Your task to perform on an android device: toggle notifications settings in the gmail app Image 0: 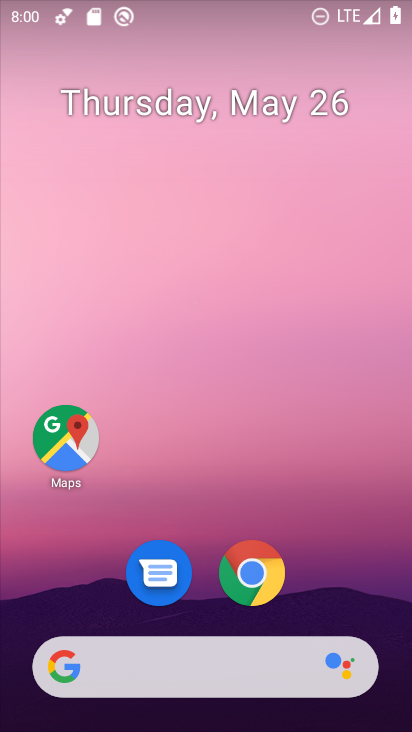
Step 0: drag from (338, 583) to (176, 11)
Your task to perform on an android device: toggle notifications settings in the gmail app Image 1: 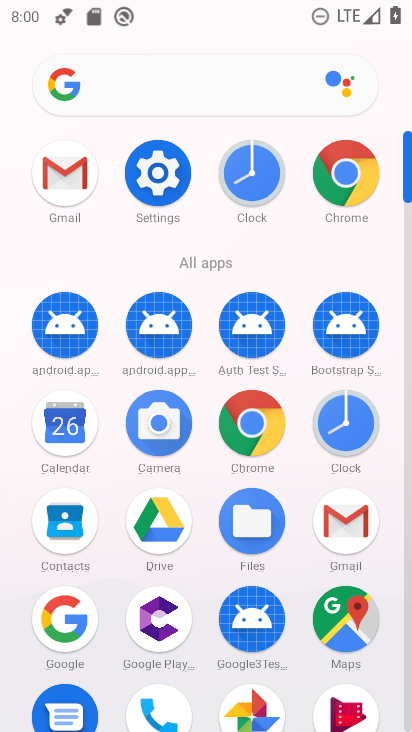
Step 1: drag from (10, 583) to (22, 277)
Your task to perform on an android device: toggle notifications settings in the gmail app Image 2: 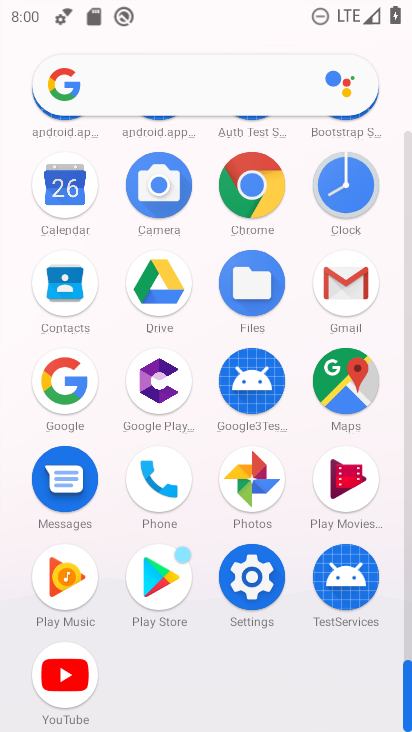
Step 2: click (250, 574)
Your task to perform on an android device: toggle notifications settings in the gmail app Image 3: 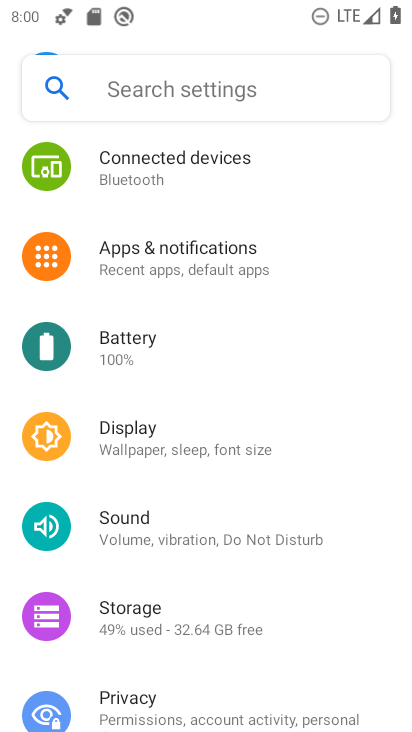
Step 3: press back button
Your task to perform on an android device: toggle notifications settings in the gmail app Image 4: 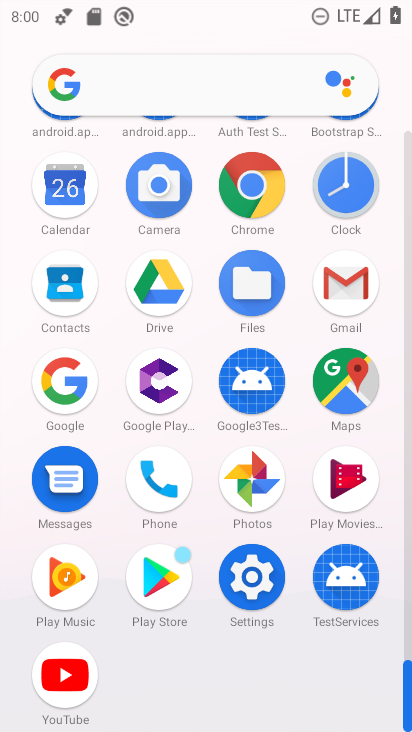
Step 4: click (346, 279)
Your task to perform on an android device: toggle notifications settings in the gmail app Image 5: 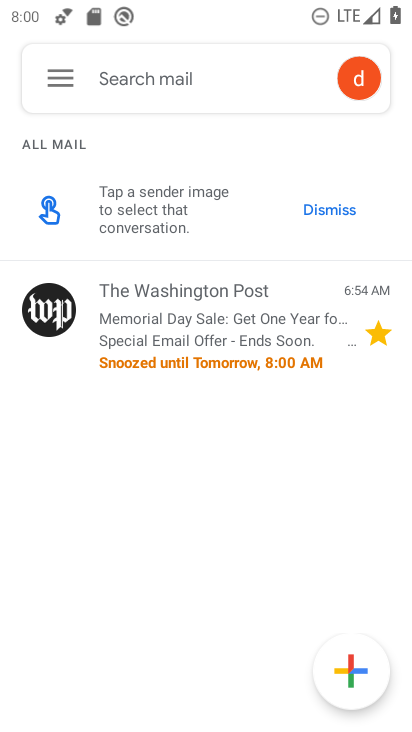
Step 5: click (61, 66)
Your task to perform on an android device: toggle notifications settings in the gmail app Image 6: 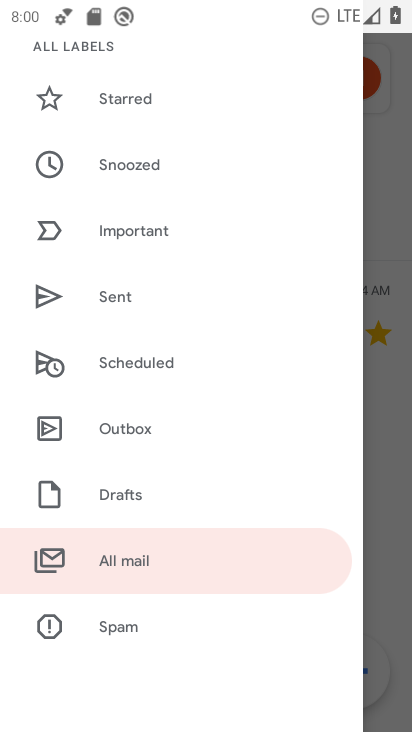
Step 6: drag from (186, 209) to (198, 74)
Your task to perform on an android device: toggle notifications settings in the gmail app Image 7: 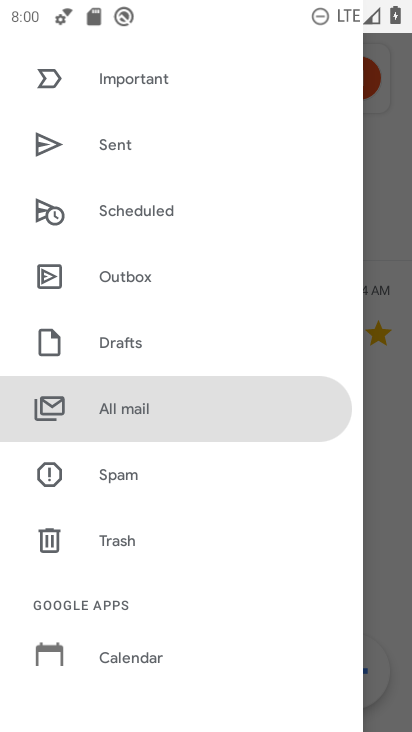
Step 7: drag from (201, 568) to (221, 123)
Your task to perform on an android device: toggle notifications settings in the gmail app Image 8: 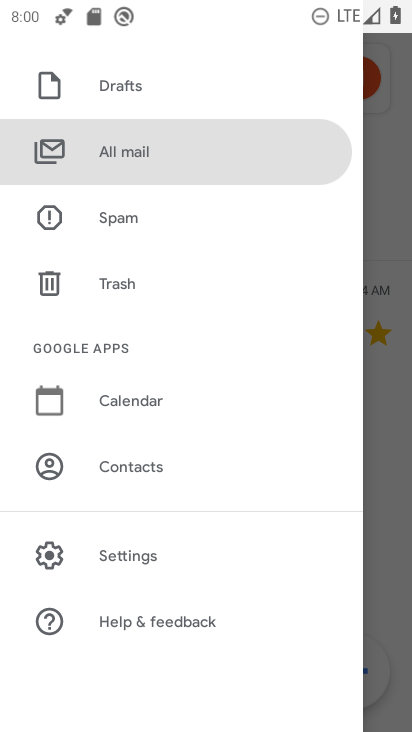
Step 8: click (128, 556)
Your task to perform on an android device: toggle notifications settings in the gmail app Image 9: 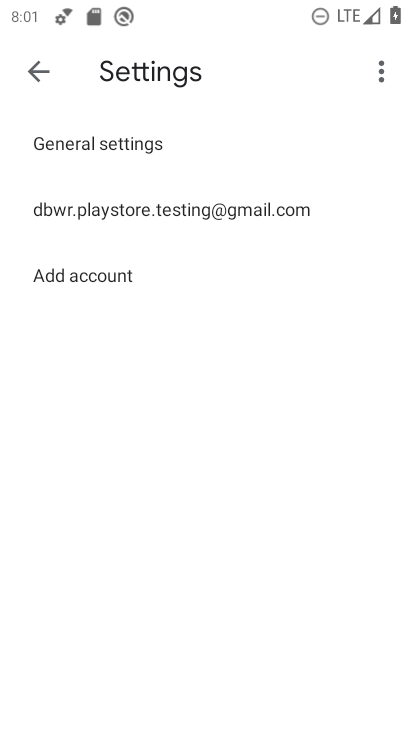
Step 9: click (170, 207)
Your task to perform on an android device: toggle notifications settings in the gmail app Image 10: 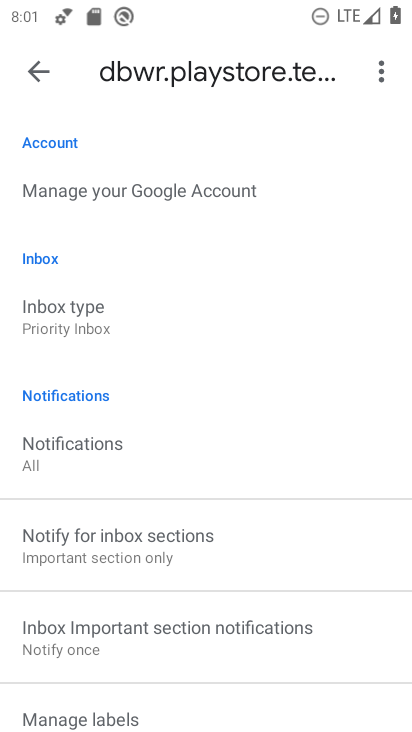
Step 10: drag from (209, 539) to (278, 182)
Your task to perform on an android device: toggle notifications settings in the gmail app Image 11: 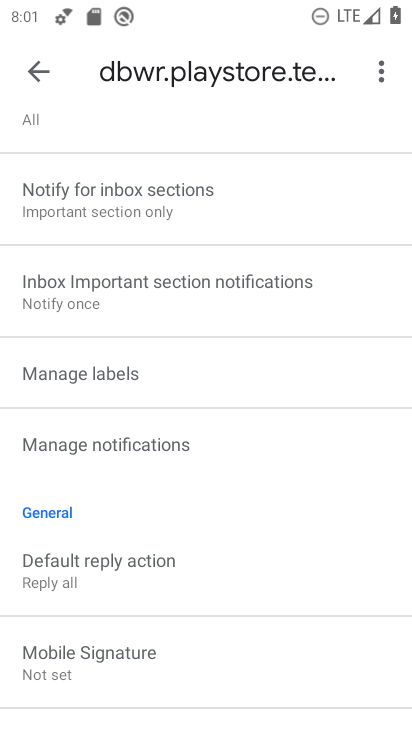
Step 11: drag from (246, 563) to (273, 139)
Your task to perform on an android device: toggle notifications settings in the gmail app Image 12: 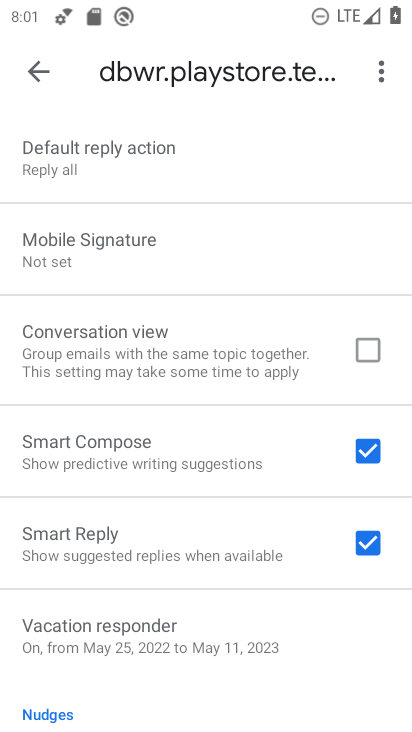
Step 12: drag from (224, 653) to (250, 190)
Your task to perform on an android device: toggle notifications settings in the gmail app Image 13: 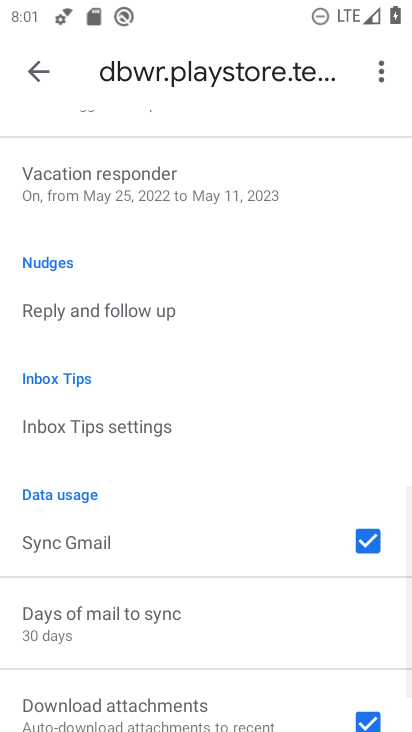
Step 13: drag from (178, 510) to (204, 135)
Your task to perform on an android device: toggle notifications settings in the gmail app Image 14: 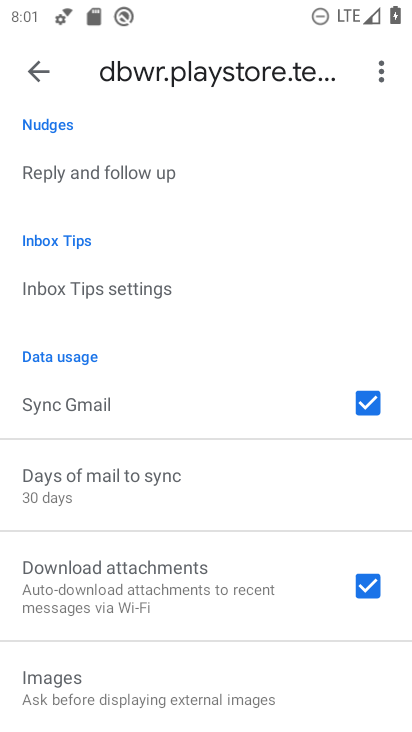
Step 14: drag from (231, 178) to (214, 576)
Your task to perform on an android device: toggle notifications settings in the gmail app Image 15: 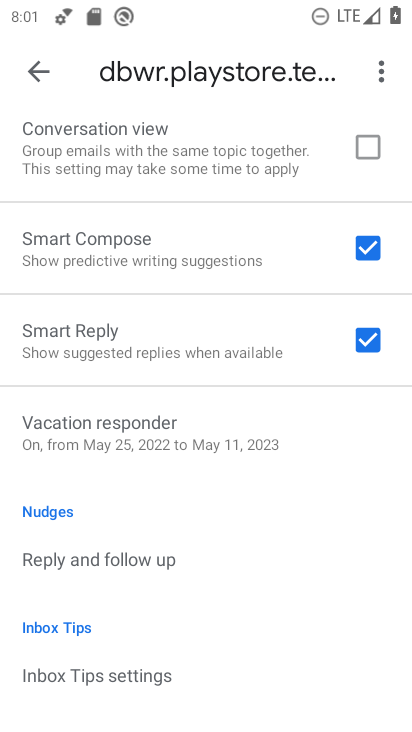
Step 15: drag from (159, 318) to (155, 606)
Your task to perform on an android device: toggle notifications settings in the gmail app Image 16: 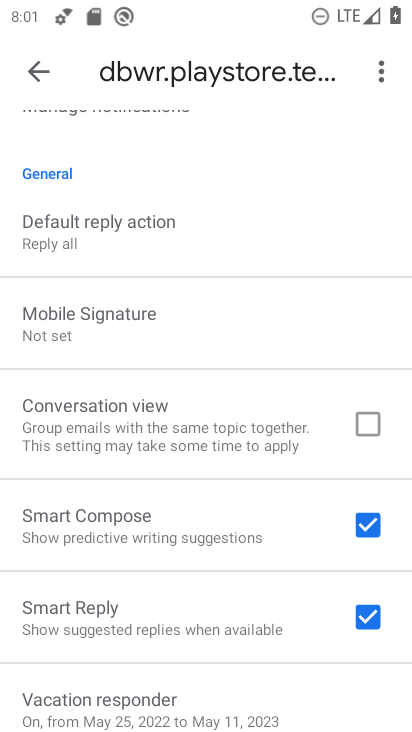
Step 16: drag from (187, 159) to (191, 613)
Your task to perform on an android device: toggle notifications settings in the gmail app Image 17: 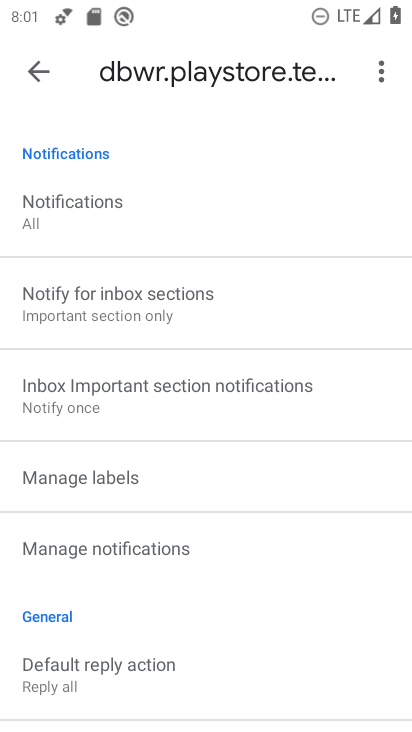
Step 17: click (145, 544)
Your task to perform on an android device: toggle notifications settings in the gmail app Image 18: 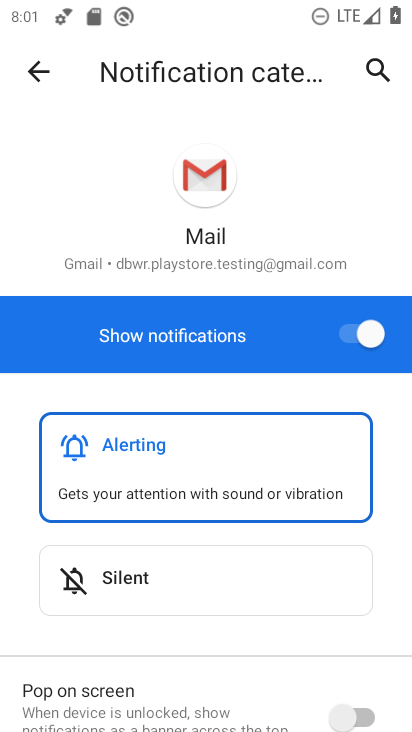
Step 18: click (351, 336)
Your task to perform on an android device: toggle notifications settings in the gmail app Image 19: 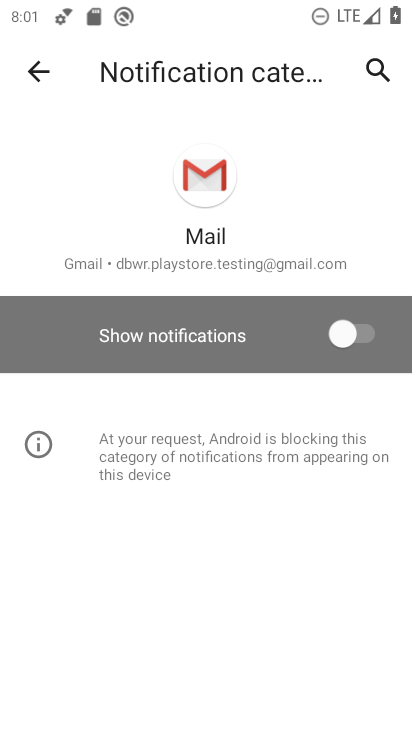
Step 19: task complete